Your task to perform on an android device: open app "Gmail" Image 0: 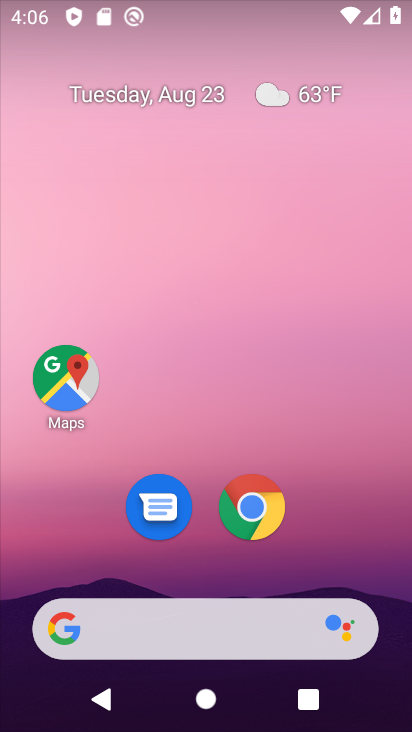
Step 0: drag from (182, 586) to (343, 114)
Your task to perform on an android device: open app "Gmail" Image 1: 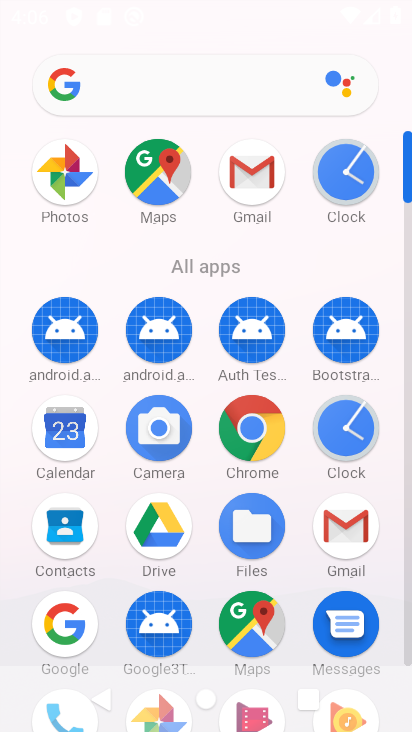
Step 1: click (262, 190)
Your task to perform on an android device: open app "Gmail" Image 2: 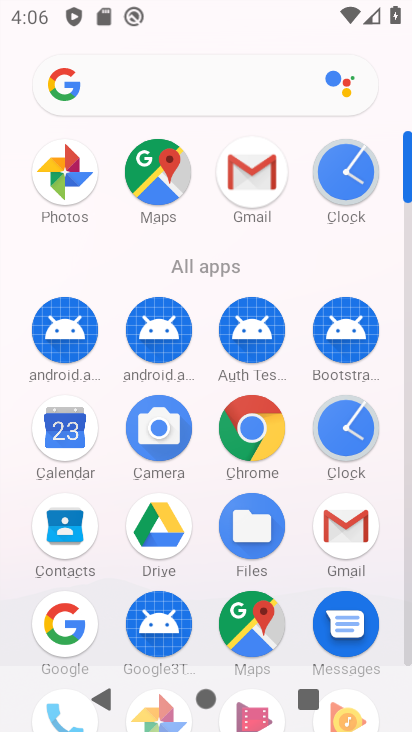
Step 2: click (263, 189)
Your task to perform on an android device: open app "Gmail" Image 3: 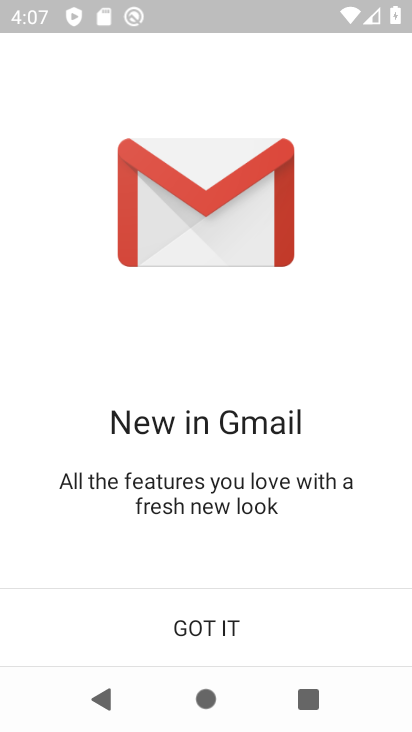
Step 3: click (186, 622)
Your task to perform on an android device: open app "Gmail" Image 4: 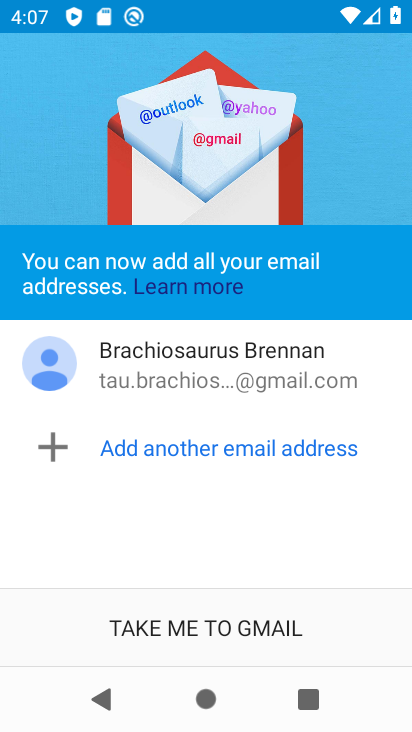
Step 4: click (180, 631)
Your task to perform on an android device: open app "Gmail" Image 5: 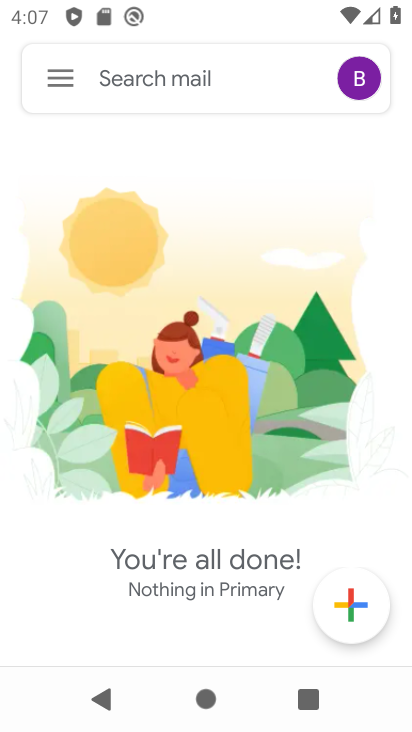
Step 5: task complete